Your task to perform on an android device: Go to eBay Image 0: 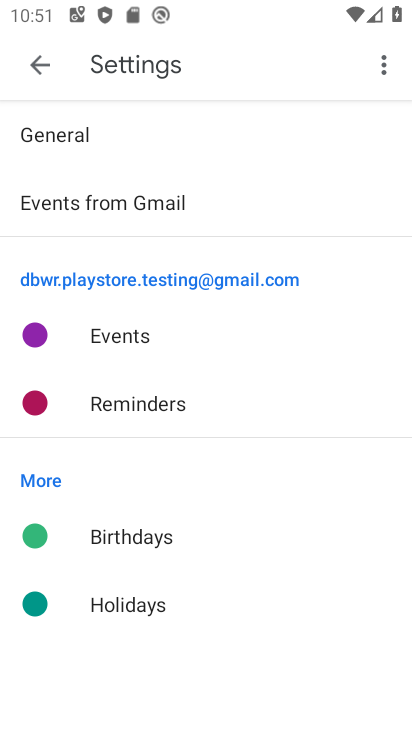
Step 0: press home button
Your task to perform on an android device: Go to eBay Image 1: 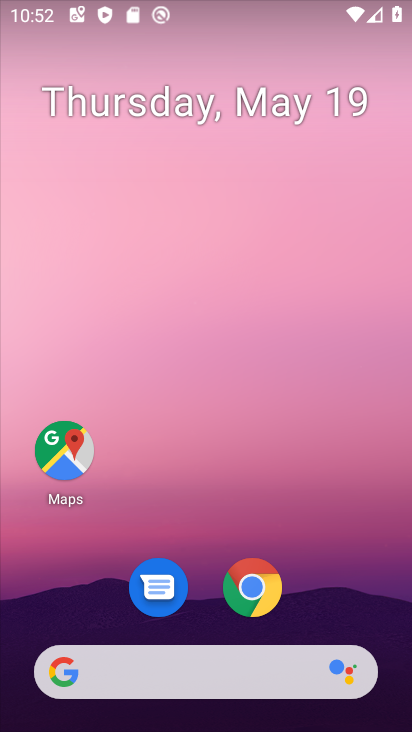
Step 1: click (249, 585)
Your task to perform on an android device: Go to eBay Image 2: 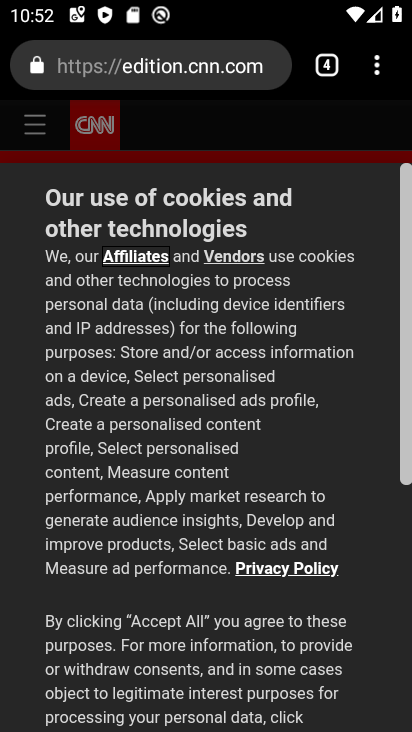
Step 2: click (174, 65)
Your task to perform on an android device: Go to eBay Image 3: 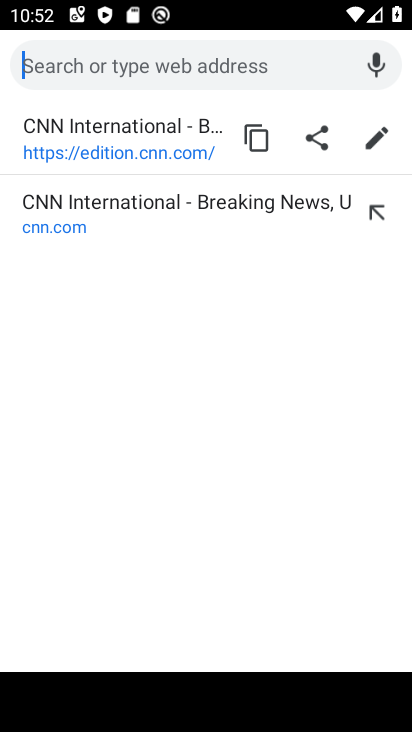
Step 3: type "ebay"
Your task to perform on an android device: Go to eBay Image 4: 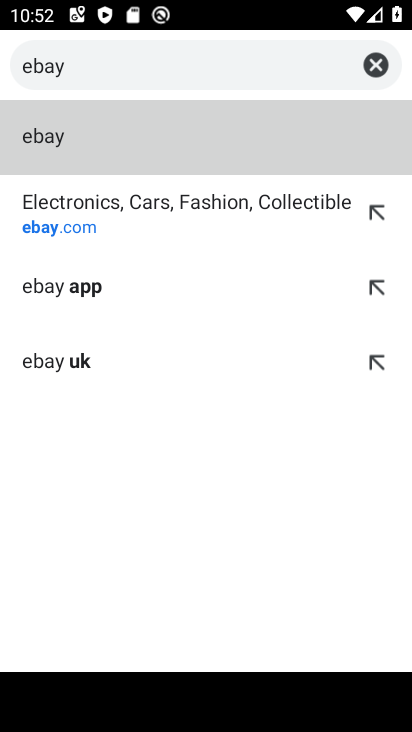
Step 4: click (137, 203)
Your task to perform on an android device: Go to eBay Image 5: 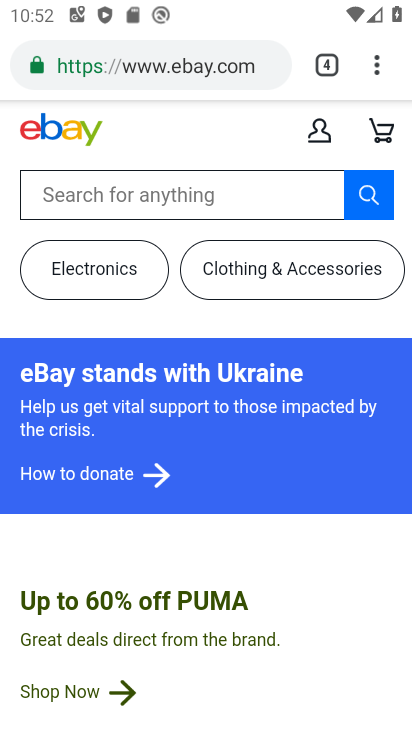
Step 5: task complete